Your task to perform on an android device: Go to settings Image 0: 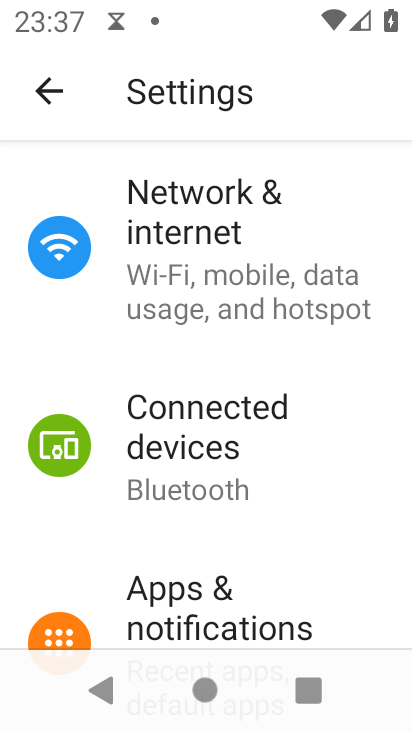
Step 0: task complete